Your task to perform on an android device: turn off javascript in the chrome app Image 0: 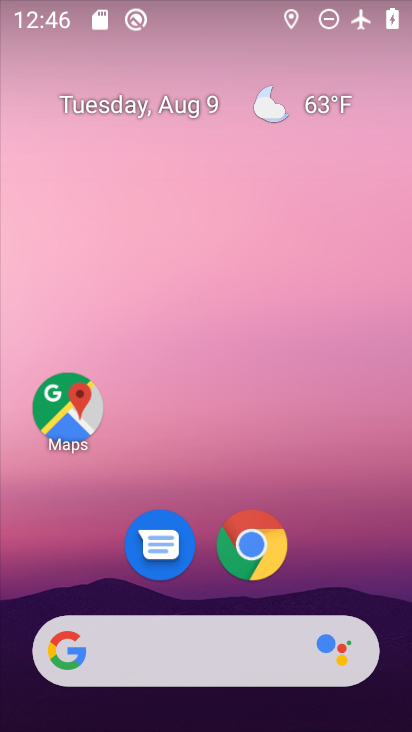
Step 0: click (254, 544)
Your task to perform on an android device: turn off javascript in the chrome app Image 1: 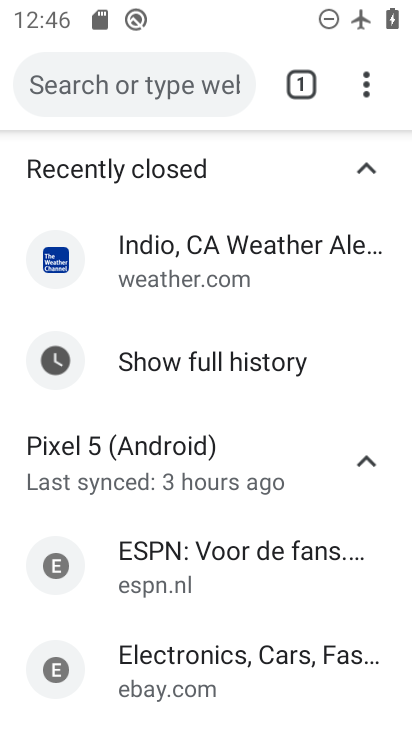
Step 1: click (366, 85)
Your task to perform on an android device: turn off javascript in the chrome app Image 2: 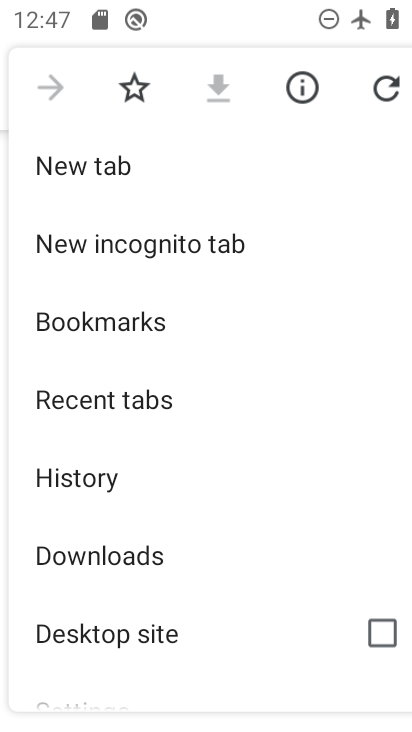
Step 2: drag from (144, 578) to (221, 469)
Your task to perform on an android device: turn off javascript in the chrome app Image 3: 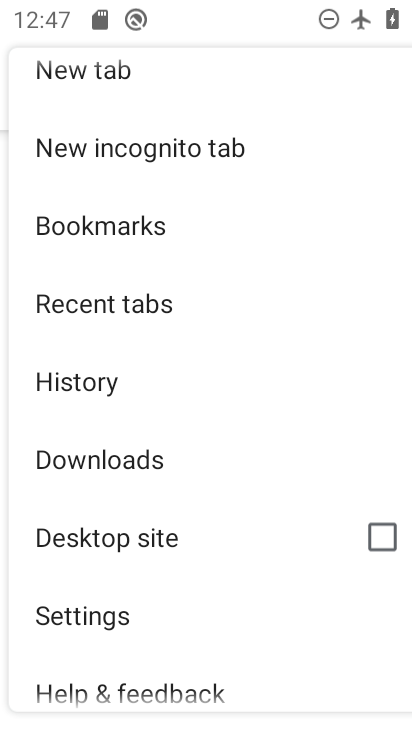
Step 3: click (103, 612)
Your task to perform on an android device: turn off javascript in the chrome app Image 4: 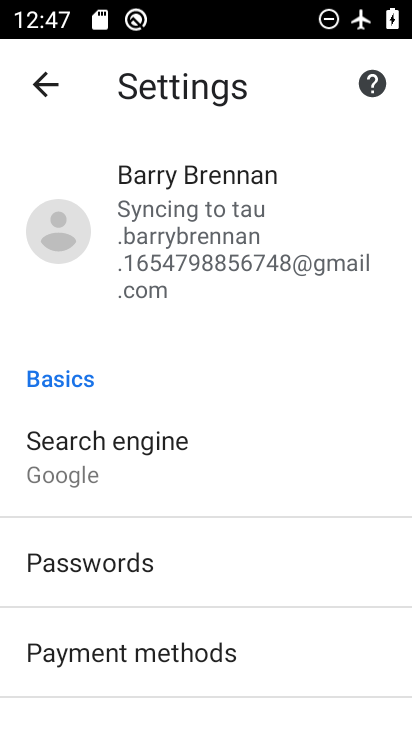
Step 4: drag from (130, 619) to (219, 444)
Your task to perform on an android device: turn off javascript in the chrome app Image 5: 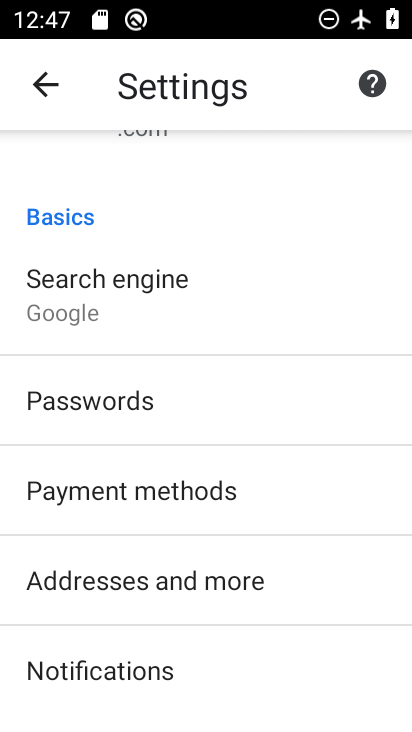
Step 5: drag from (177, 597) to (244, 460)
Your task to perform on an android device: turn off javascript in the chrome app Image 6: 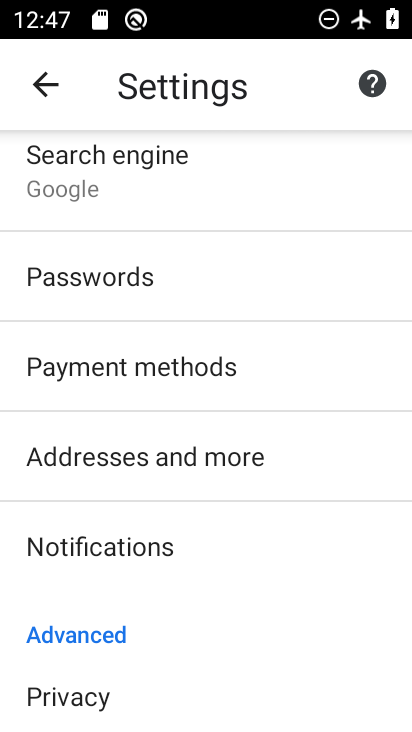
Step 6: drag from (139, 646) to (259, 482)
Your task to perform on an android device: turn off javascript in the chrome app Image 7: 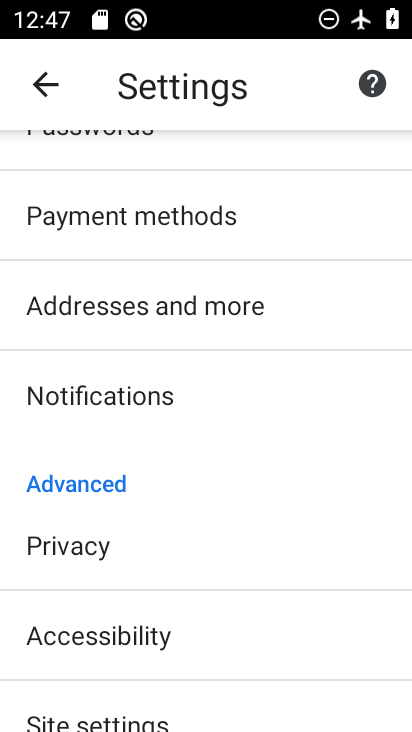
Step 7: drag from (196, 652) to (309, 462)
Your task to perform on an android device: turn off javascript in the chrome app Image 8: 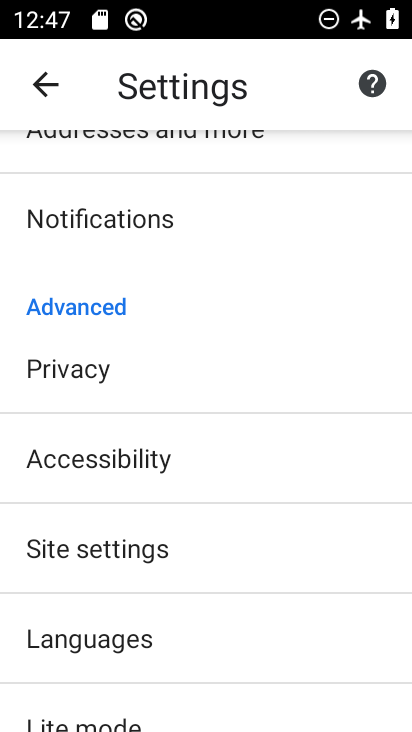
Step 8: click (104, 546)
Your task to perform on an android device: turn off javascript in the chrome app Image 9: 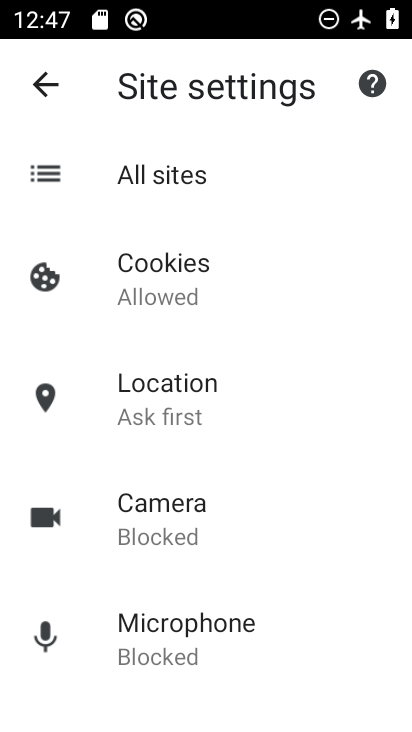
Step 9: drag from (197, 561) to (277, 445)
Your task to perform on an android device: turn off javascript in the chrome app Image 10: 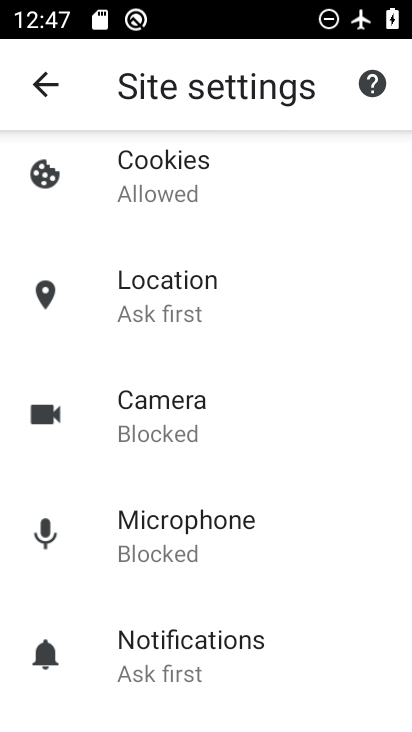
Step 10: drag from (192, 577) to (273, 457)
Your task to perform on an android device: turn off javascript in the chrome app Image 11: 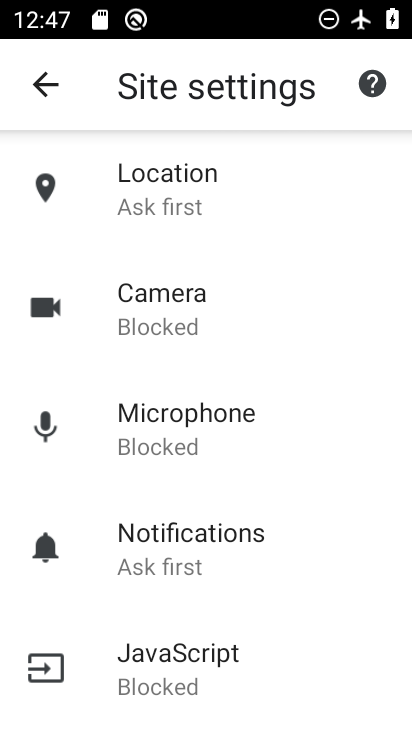
Step 11: click (195, 662)
Your task to perform on an android device: turn off javascript in the chrome app Image 12: 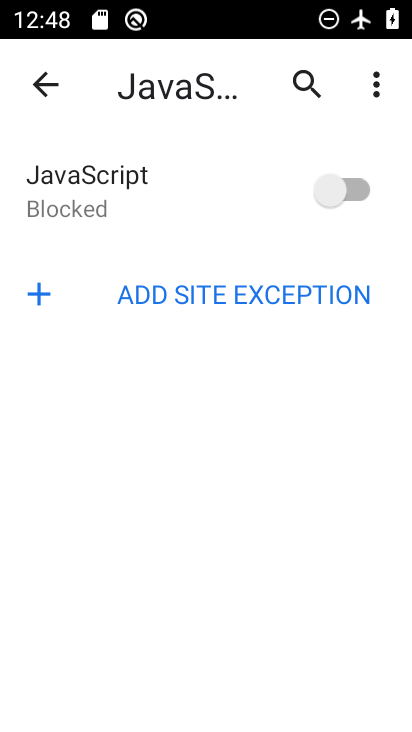
Step 12: task complete